Your task to perform on an android device: snooze an email in the gmail app Image 0: 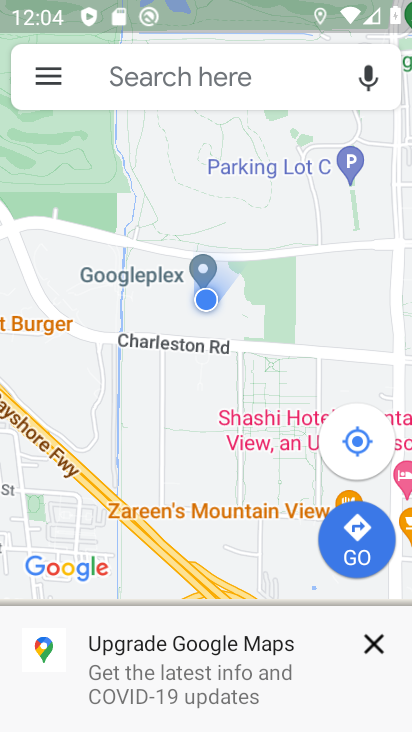
Step 0: task complete